Your task to perform on an android device: make emails show in primary in the gmail app Image 0: 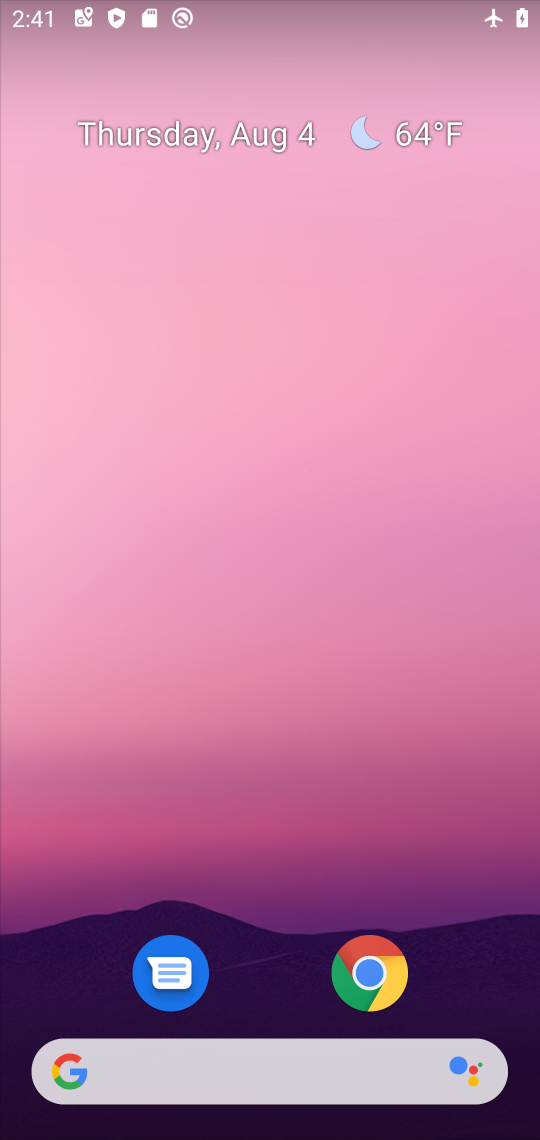
Step 0: drag from (326, 1052) to (465, 1047)
Your task to perform on an android device: make emails show in primary in the gmail app Image 1: 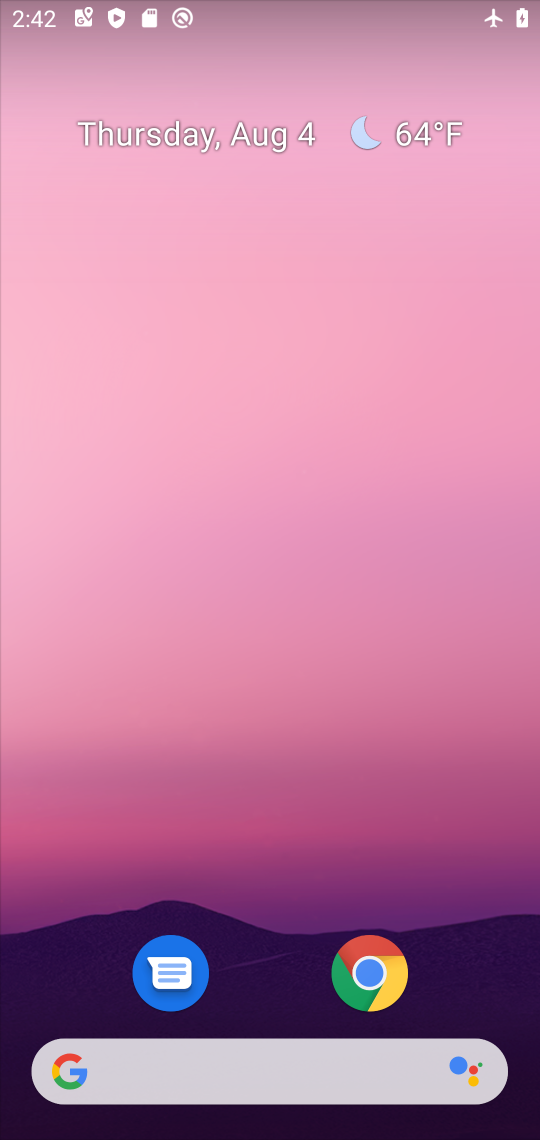
Step 1: drag from (275, 997) to (525, 256)
Your task to perform on an android device: make emails show in primary in the gmail app Image 2: 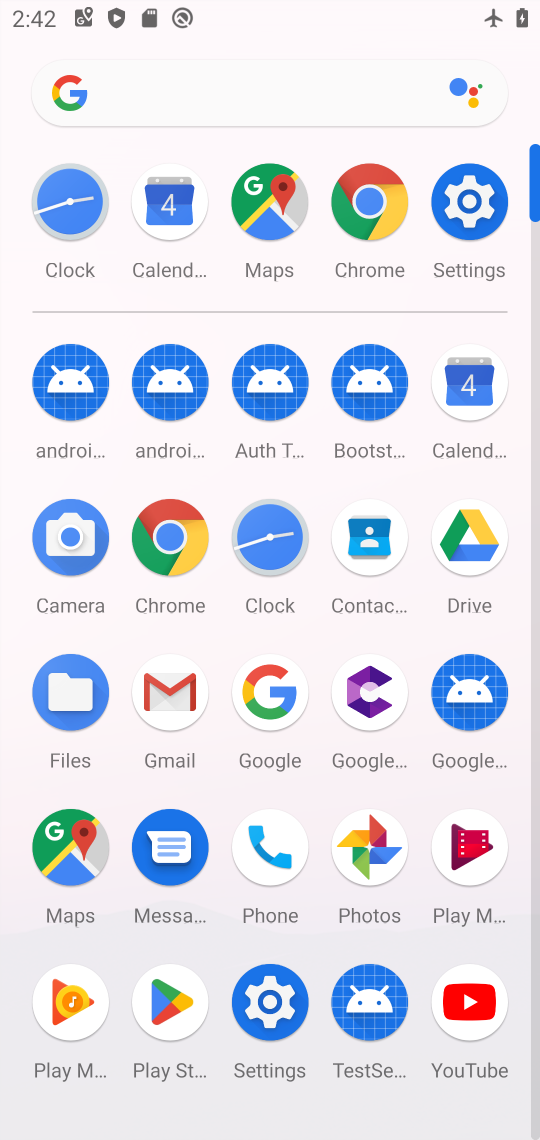
Step 2: click (167, 701)
Your task to perform on an android device: make emails show in primary in the gmail app Image 3: 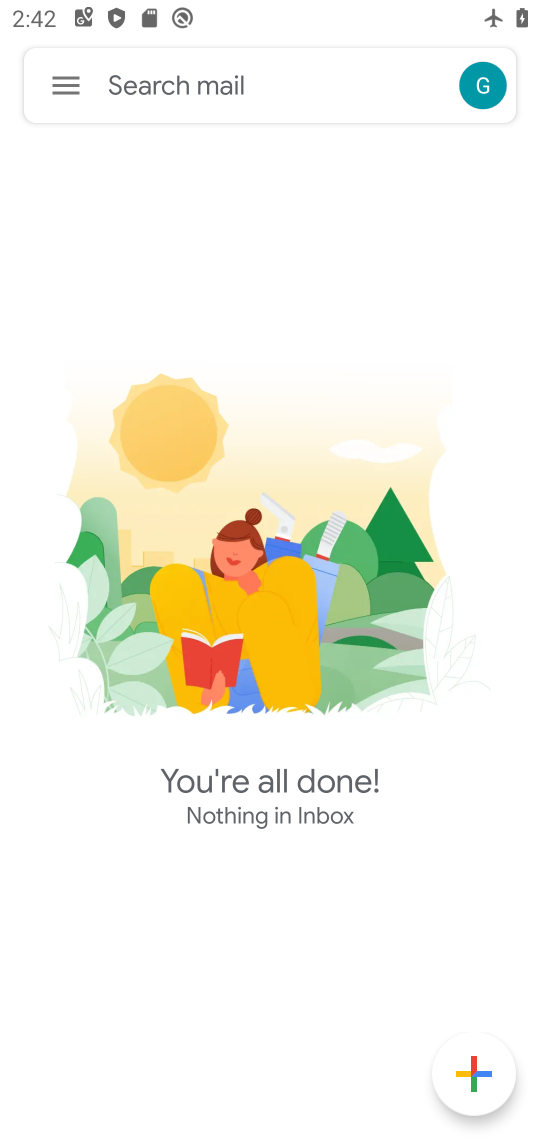
Step 3: click (30, 67)
Your task to perform on an android device: make emails show in primary in the gmail app Image 4: 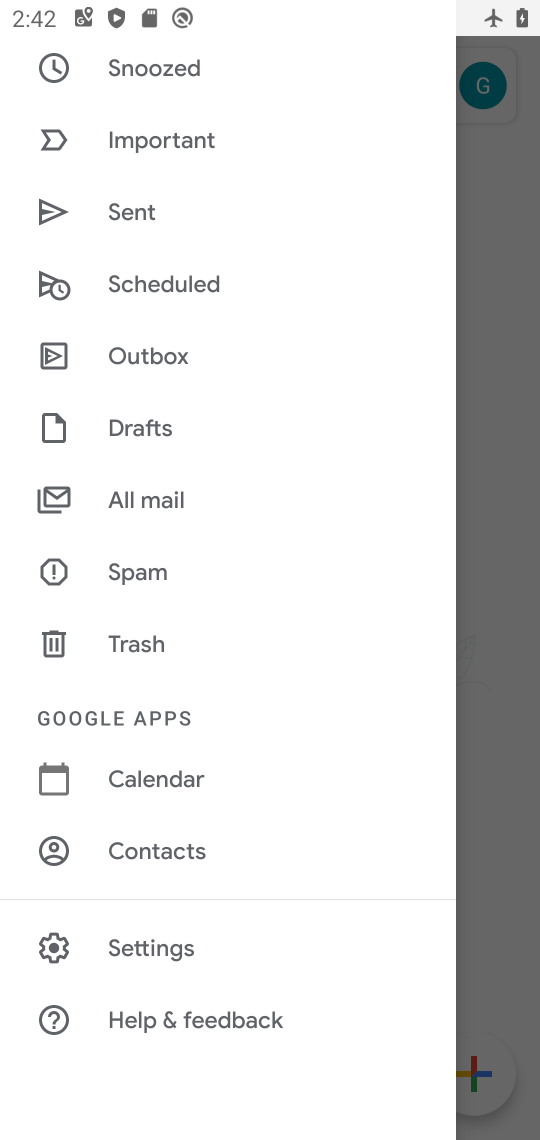
Step 4: click (172, 950)
Your task to perform on an android device: make emails show in primary in the gmail app Image 5: 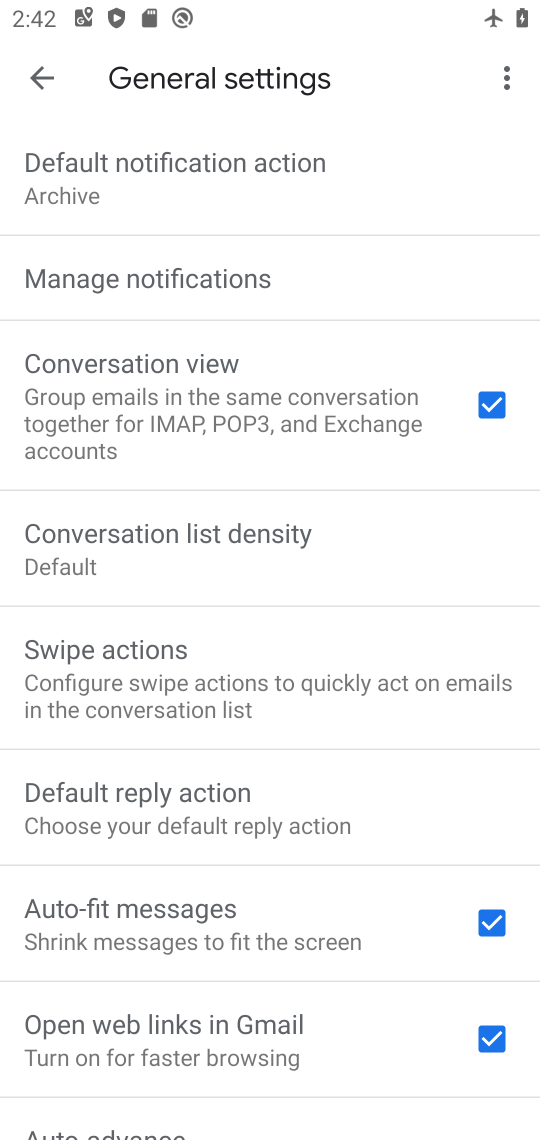
Step 5: click (40, 67)
Your task to perform on an android device: make emails show in primary in the gmail app Image 6: 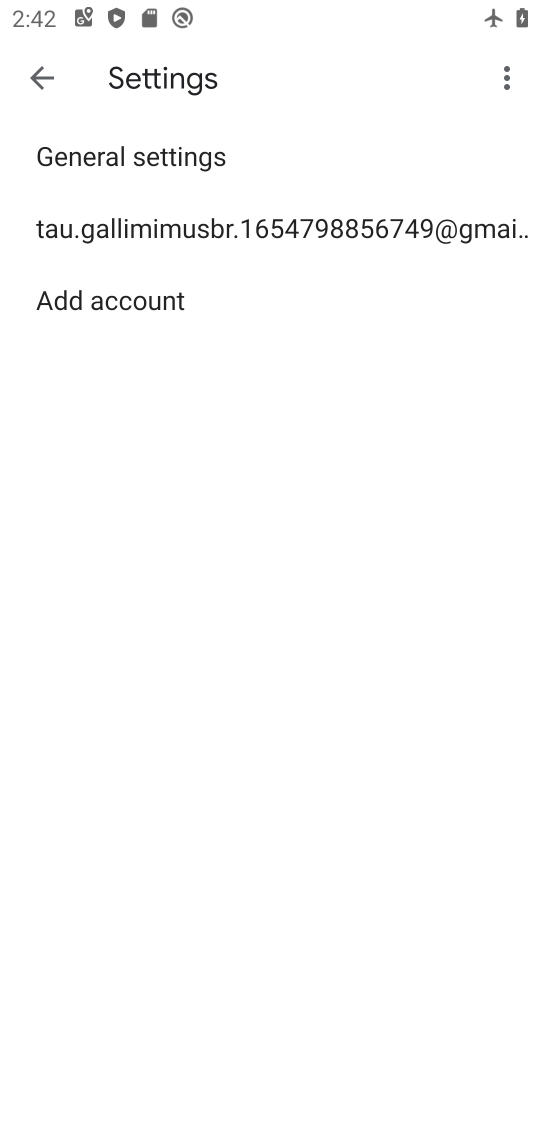
Step 6: click (102, 214)
Your task to perform on an android device: make emails show in primary in the gmail app Image 7: 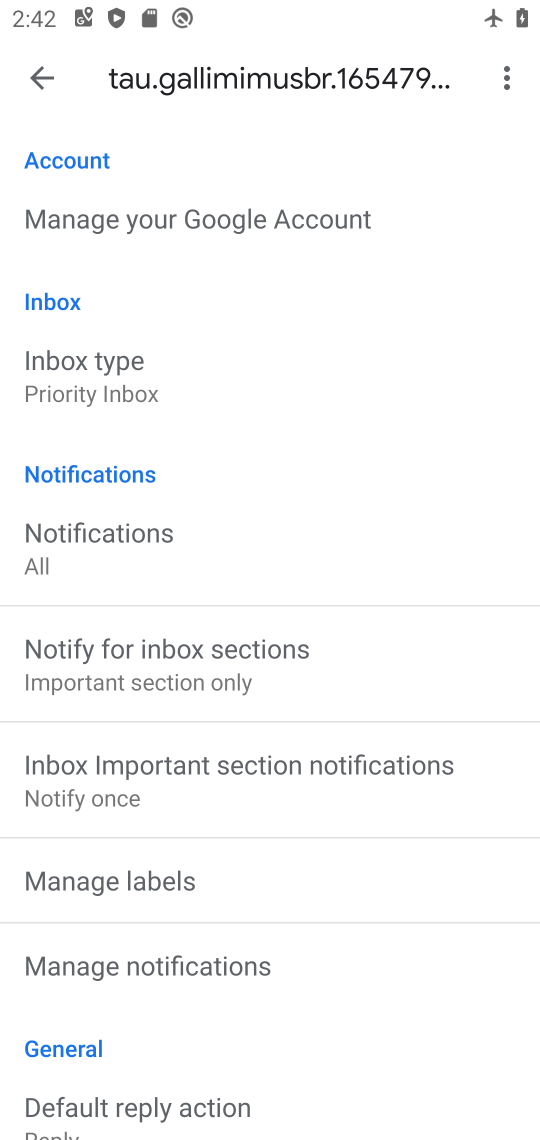
Step 7: click (129, 385)
Your task to perform on an android device: make emails show in primary in the gmail app Image 8: 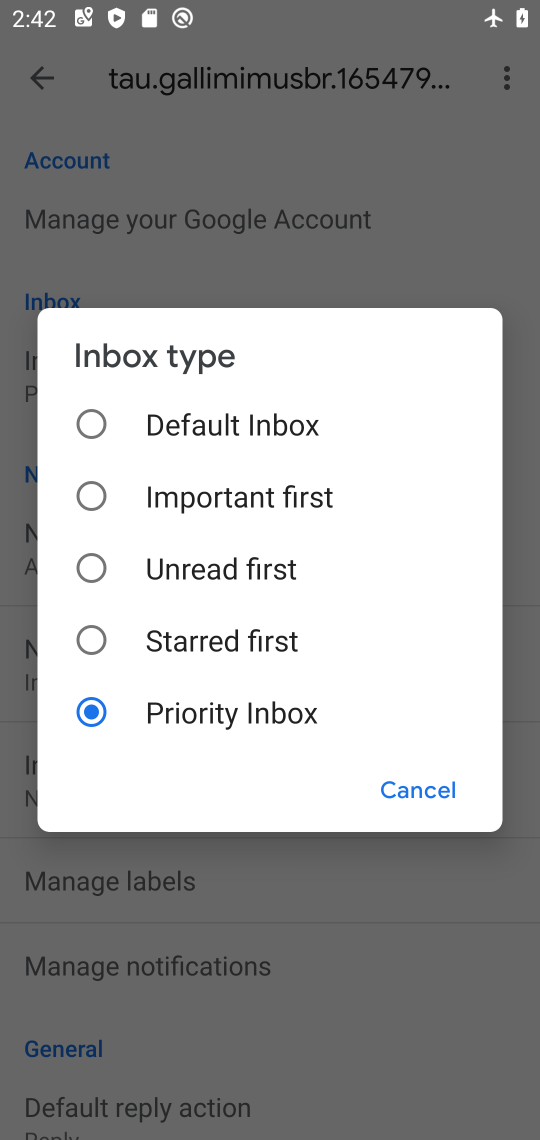
Step 8: click (161, 423)
Your task to perform on an android device: make emails show in primary in the gmail app Image 9: 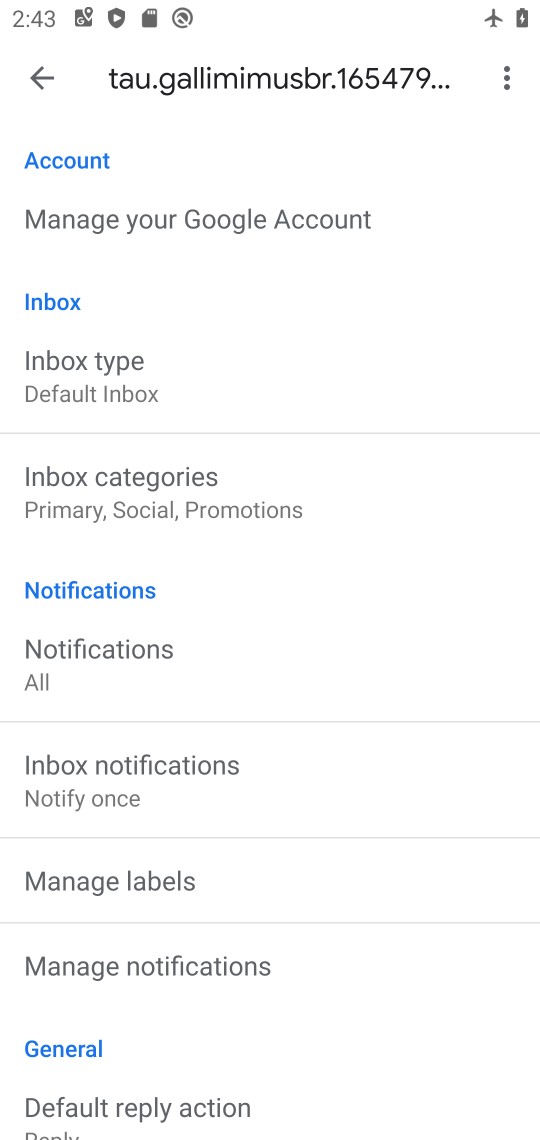
Step 9: click (28, 91)
Your task to perform on an android device: make emails show in primary in the gmail app Image 10: 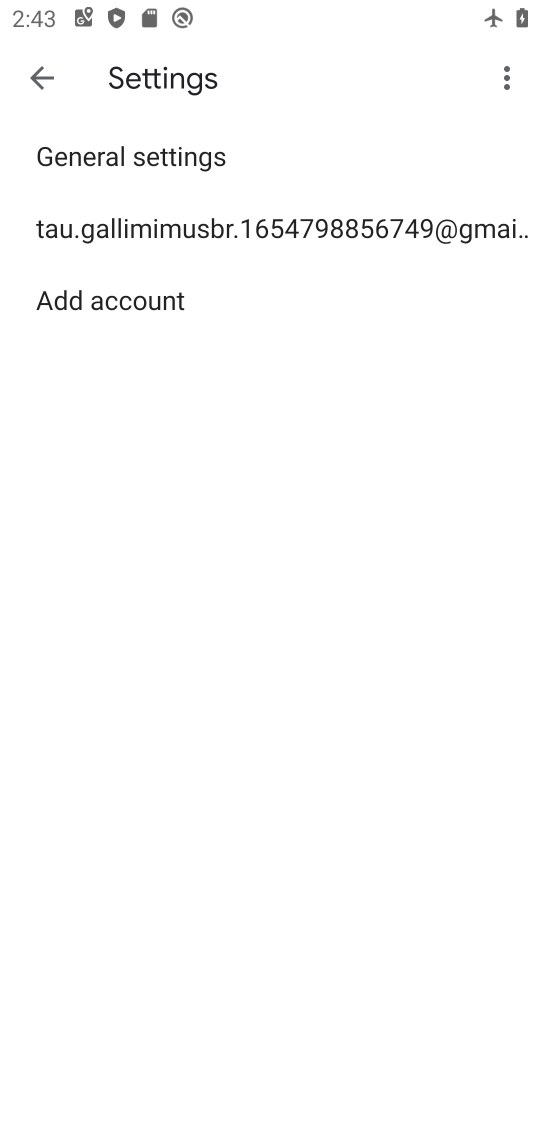
Step 10: click (39, 73)
Your task to perform on an android device: make emails show in primary in the gmail app Image 11: 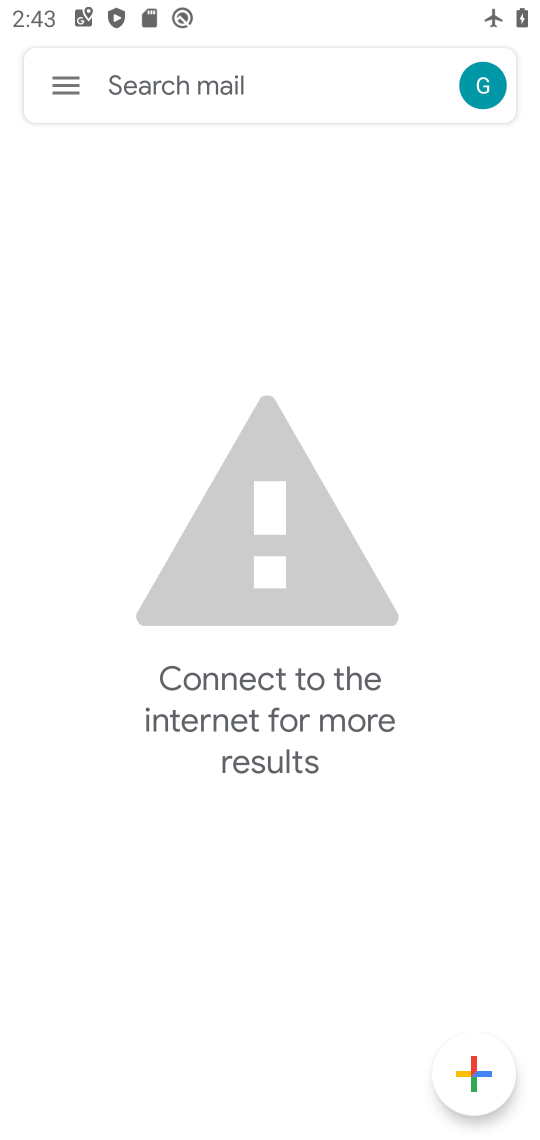
Step 11: task complete